Your task to perform on an android device: check android version Image 0: 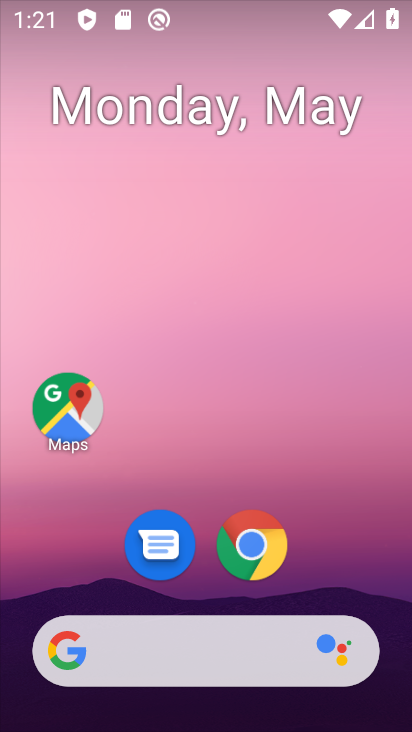
Step 0: drag from (170, 722) to (130, 62)
Your task to perform on an android device: check android version Image 1: 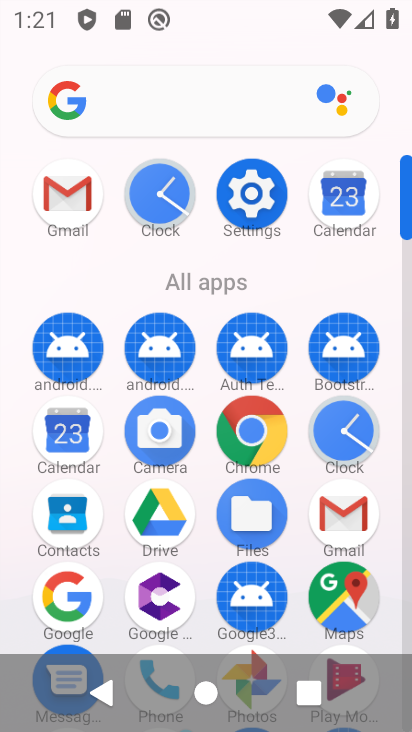
Step 1: click (253, 197)
Your task to perform on an android device: check android version Image 2: 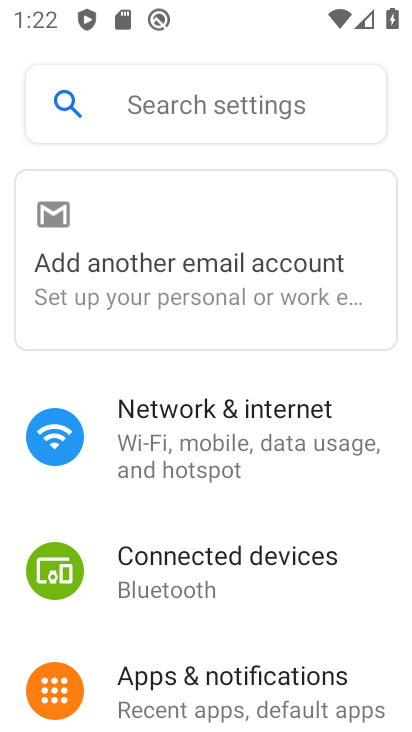
Step 2: drag from (257, 668) to (280, 83)
Your task to perform on an android device: check android version Image 3: 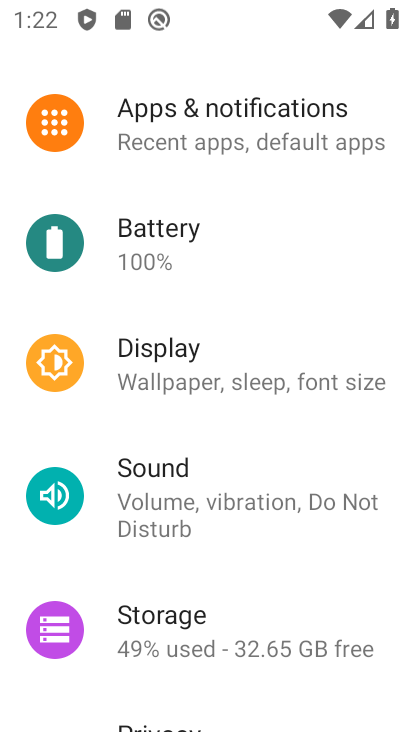
Step 3: drag from (219, 652) to (246, 44)
Your task to perform on an android device: check android version Image 4: 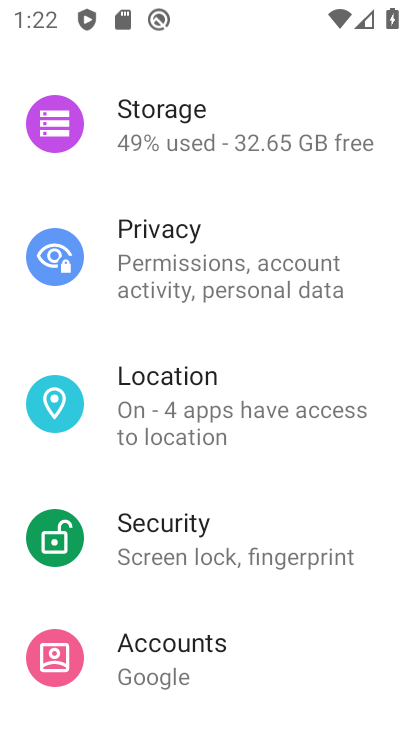
Step 4: drag from (226, 656) to (263, 85)
Your task to perform on an android device: check android version Image 5: 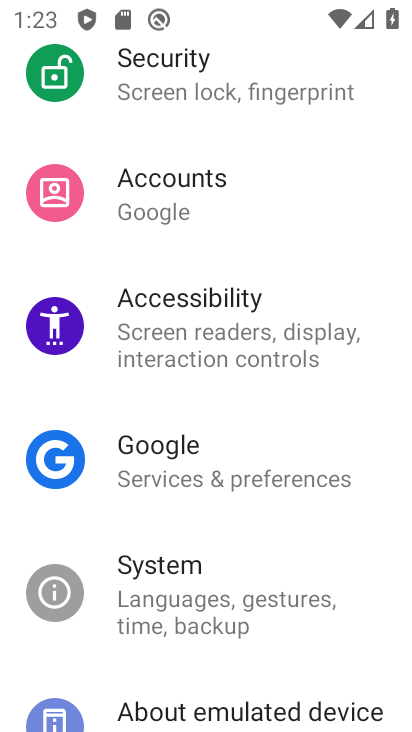
Step 5: drag from (272, 661) to (173, 6)
Your task to perform on an android device: check android version Image 6: 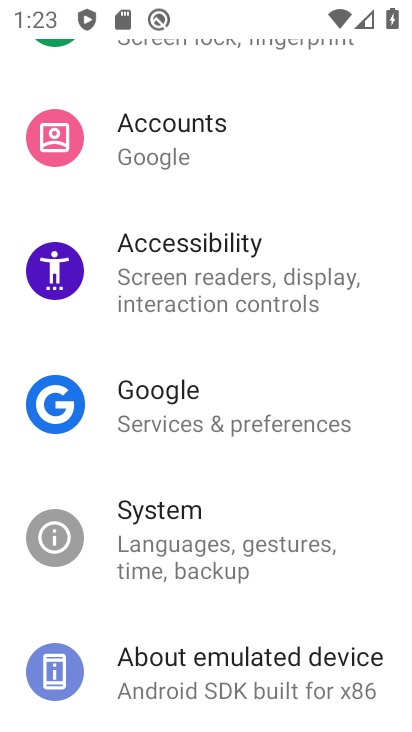
Step 6: drag from (221, 663) to (195, 40)
Your task to perform on an android device: check android version Image 7: 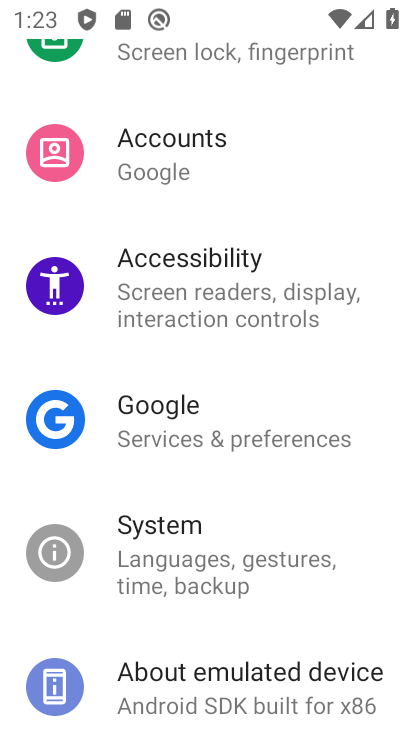
Step 7: click (265, 692)
Your task to perform on an android device: check android version Image 8: 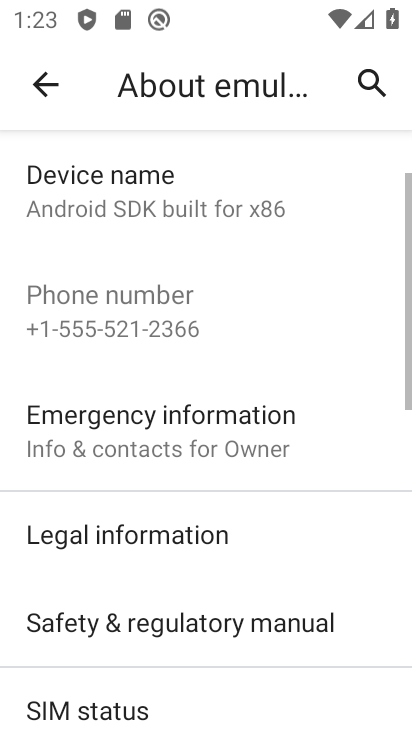
Step 8: task complete